Your task to perform on an android device: turn off wifi Image 0: 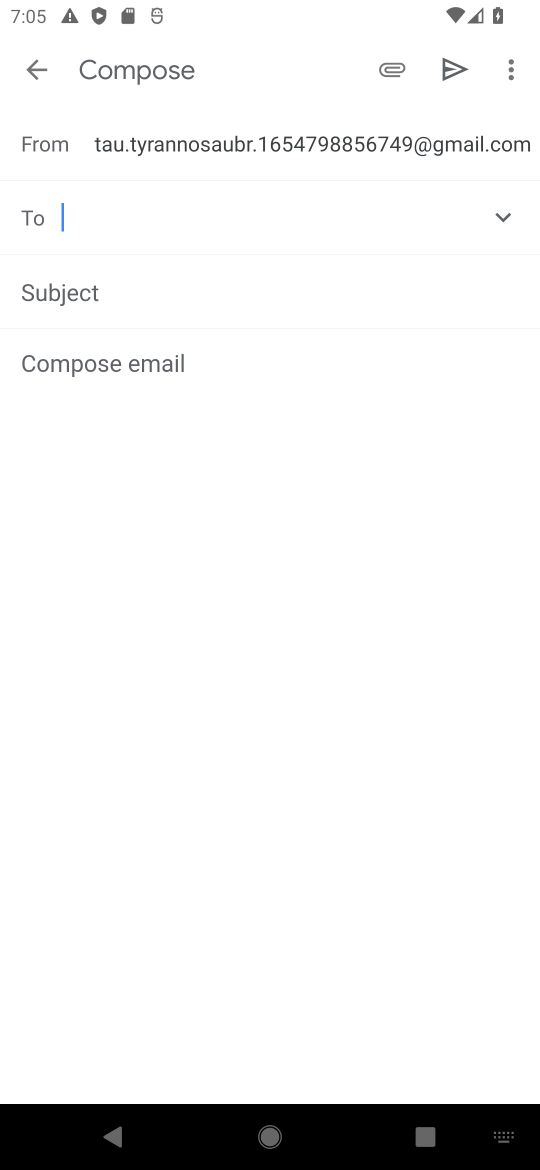
Step 0: drag from (238, 268) to (131, 1144)
Your task to perform on an android device: turn off wifi Image 1: 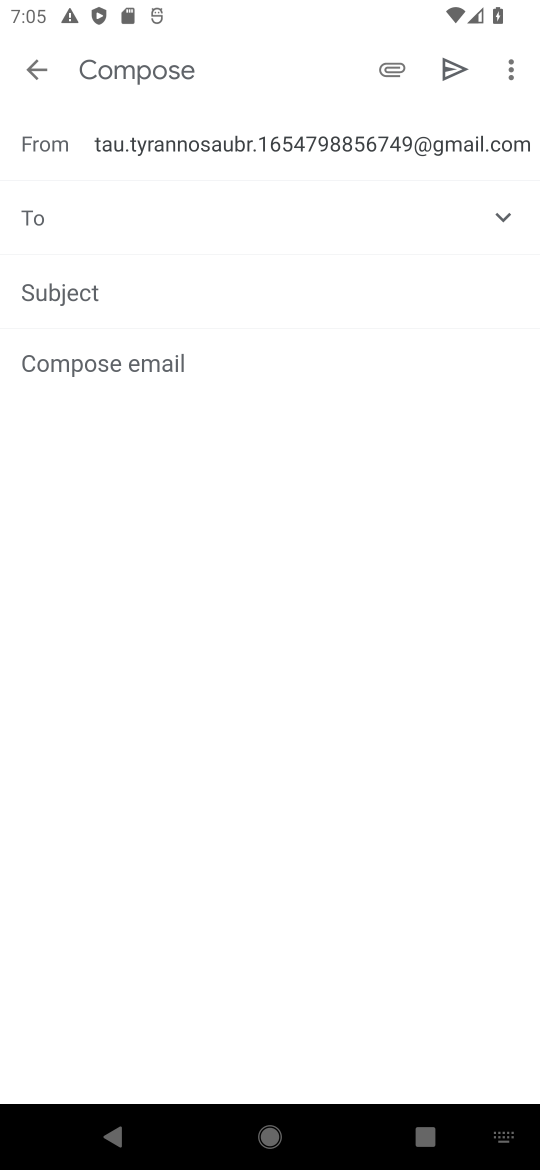
Step 1: drag from (119, 128) to (141, 979)
Your task to perform on an android device: turn off wifi Image 2: 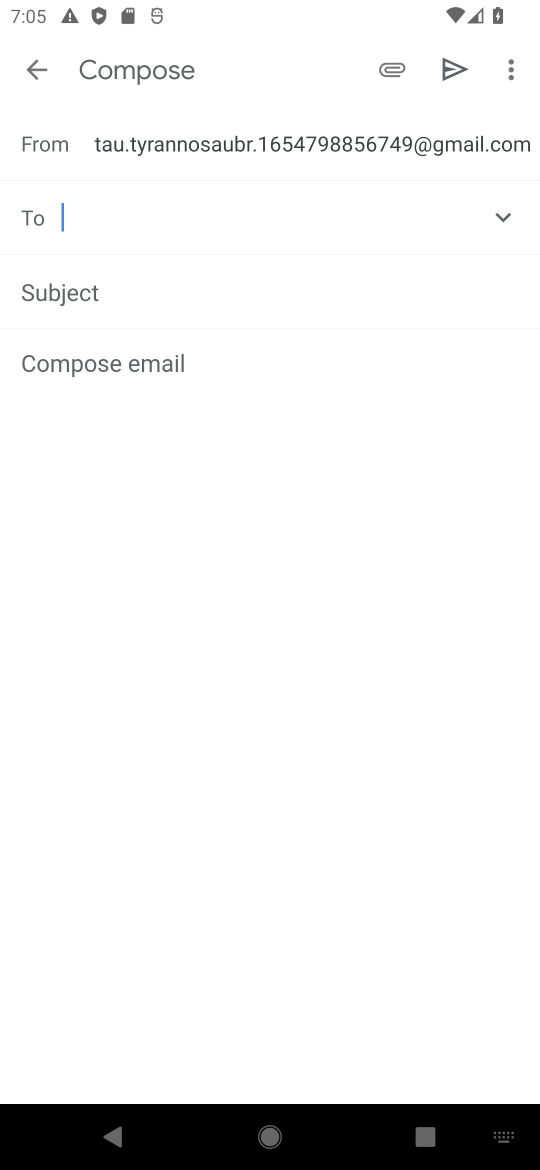
Step 2: drag from (209, 326) to (304, 900)
Your task to perform on an android device: turn off wifi Image 3: 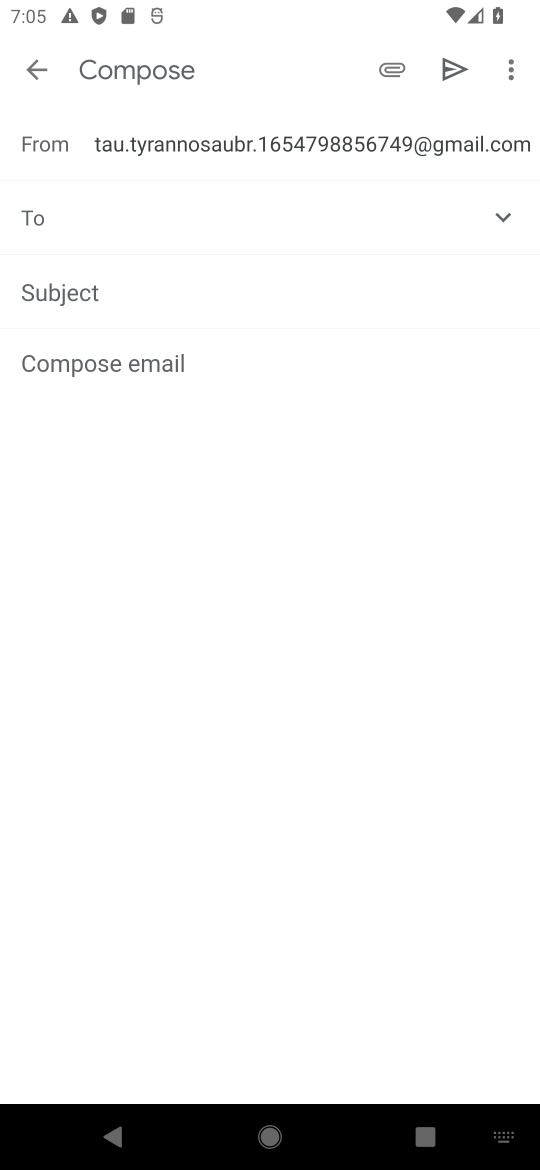
Step 3: drag from (202, 25) to (259, 960)
Your task to perform on an android device: turn off wifi Image 4: 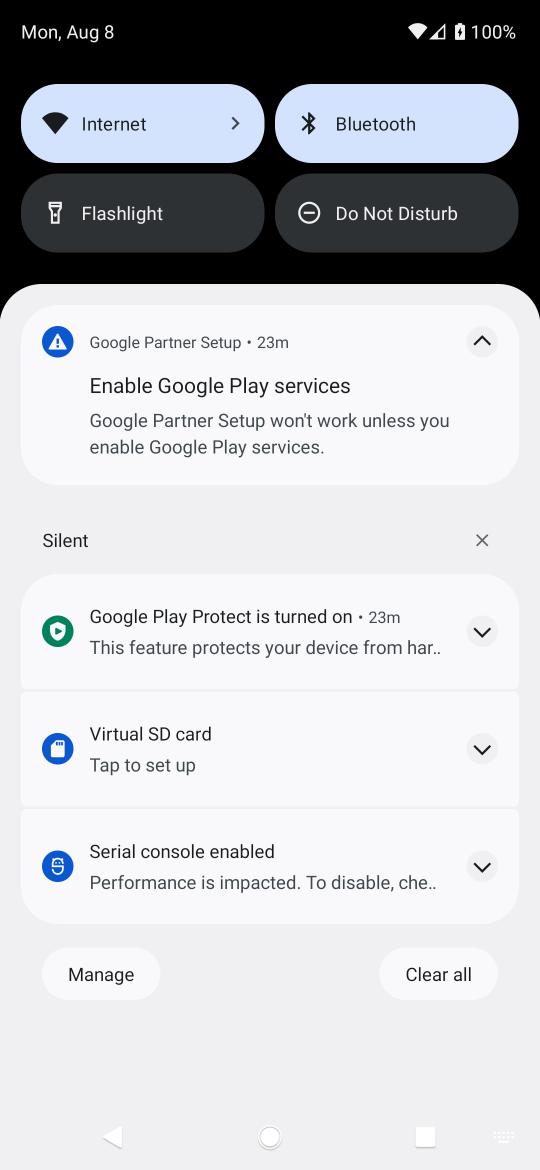
Step 4: click (69, 151)
Your task to perform on an android device: turn off wifi Image 5: 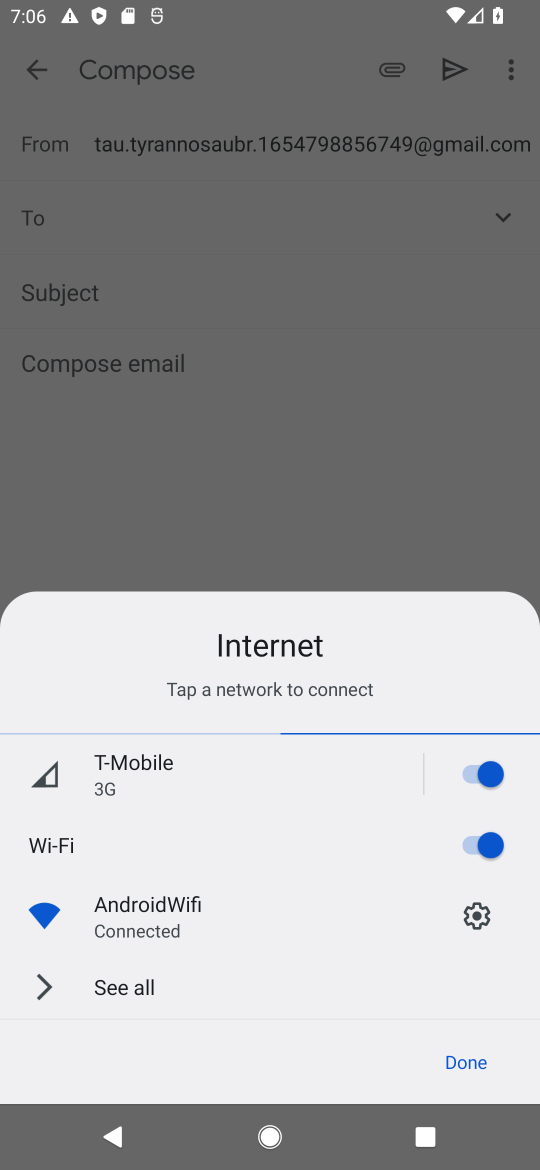
Step 5: click (484, 855)
Your task to perform on an android device: turn off wifi Image 6: 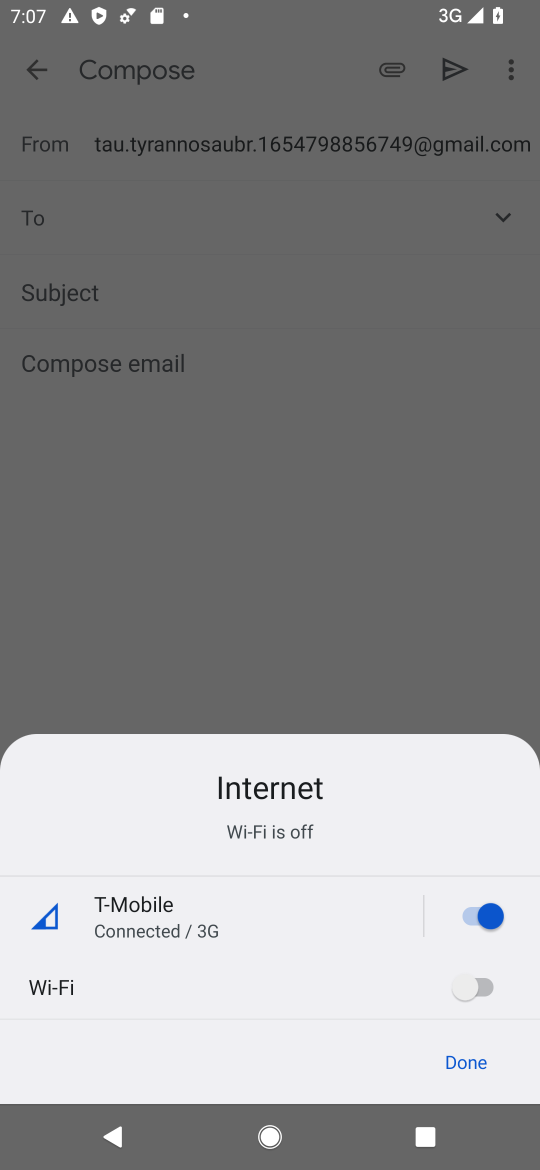
Step 6: task complete